Your task to perform on an android device: turn off smart reply in the gmail app Image 0: 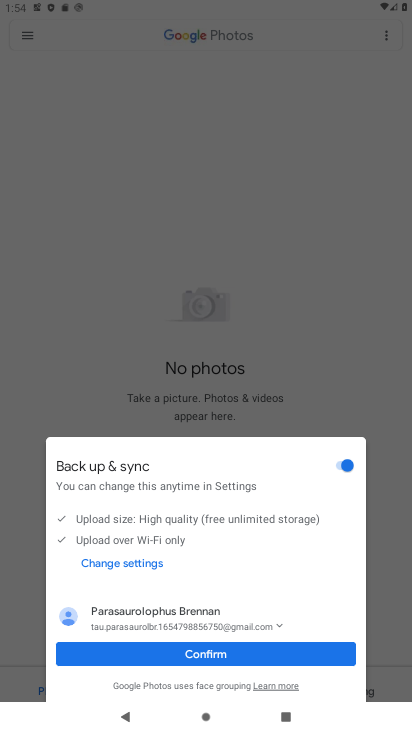
Step 0: press home button
Your task to perform on an android device: turn off smart reply in the gmail app Image 1: 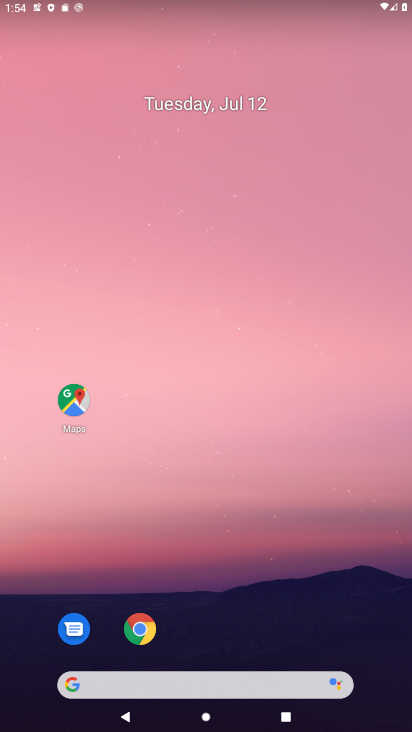
Step 1: drag from (290, 626) to (310, 68)
Your task to perform on an android device: turn off smart reply in the gmail app Image 2: 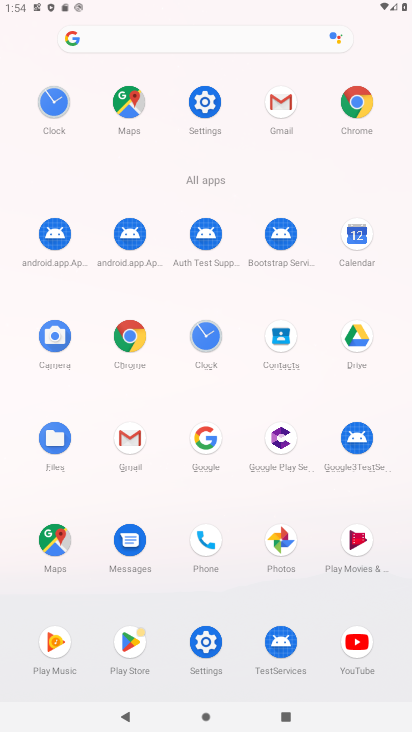
Step 2: click (277, 104)
Your task to perform on an android device: turn off smart reply in the gmail app Image 3: 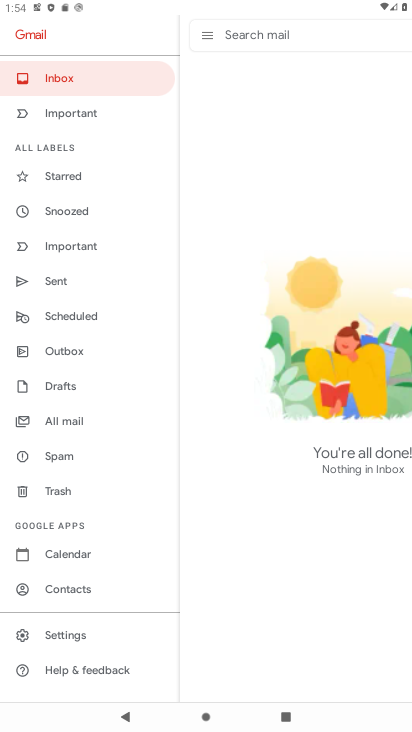
Step 3: click (73, 636)
Your task to perform on an android device: turn off smart reply in the gmail app Image 4: 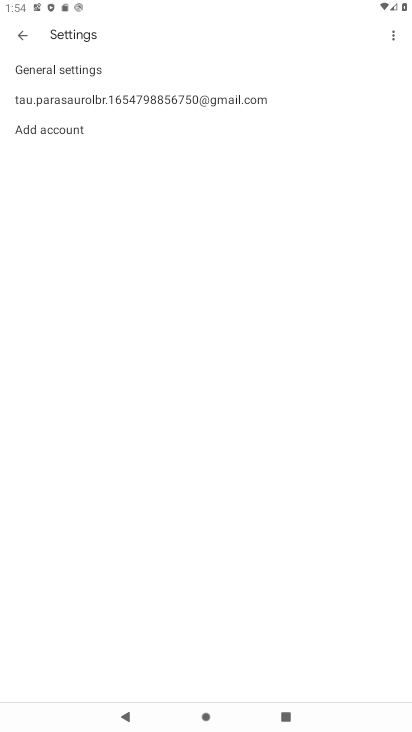
Step 4: click (281, 96)
Your task to perform on an android device: turn off smart reply in the gmail app Image 5: 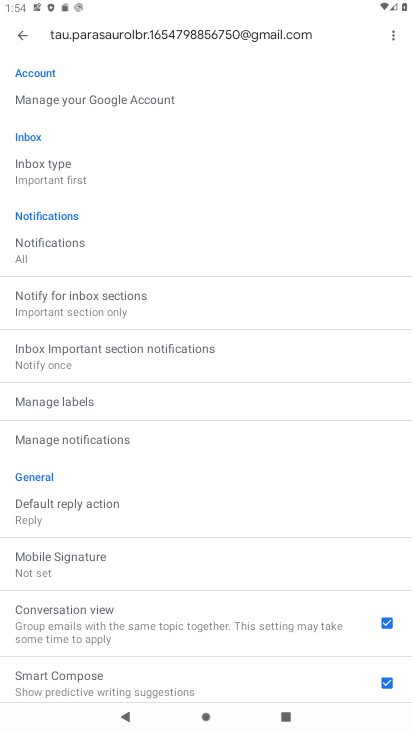
Step 5: drag from (229, 541) to (257, 202)
Your task to perform on an android device: turn off smart reply in the gmail app Image 6: 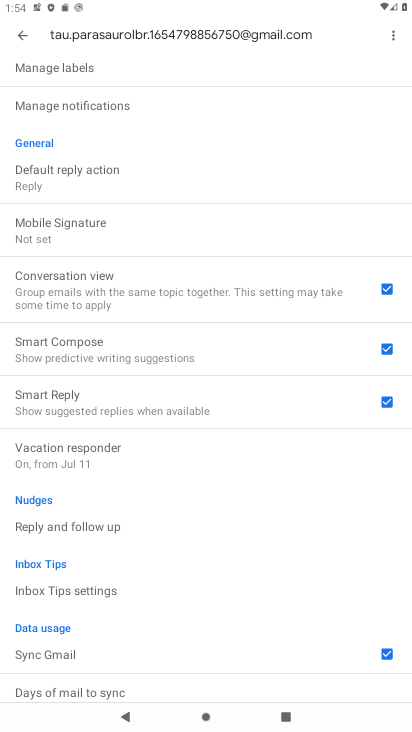
Step 6: click (389, 397)
Your task to perform on an android device: turn off smart reply in the gmail app Image 7: 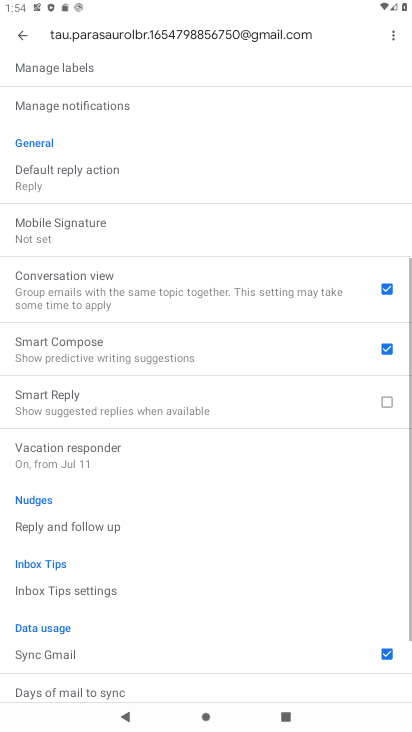
Step 7: task complete